Your task to perform on an android device: toggle notification dots Image 0: 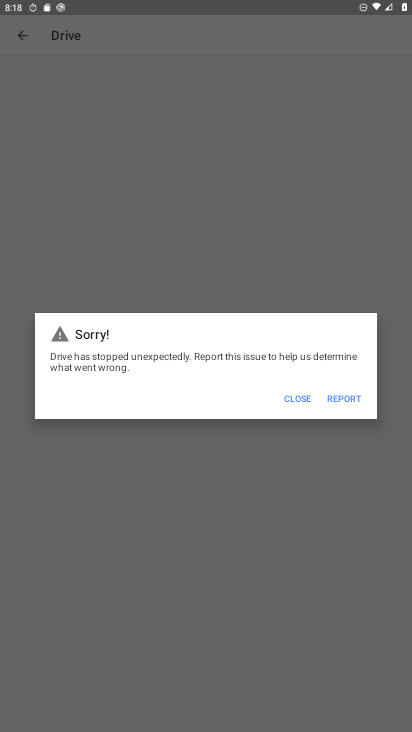
Step 0: press home button
Your task to perform on an android device: toggle notification dots Image 1: 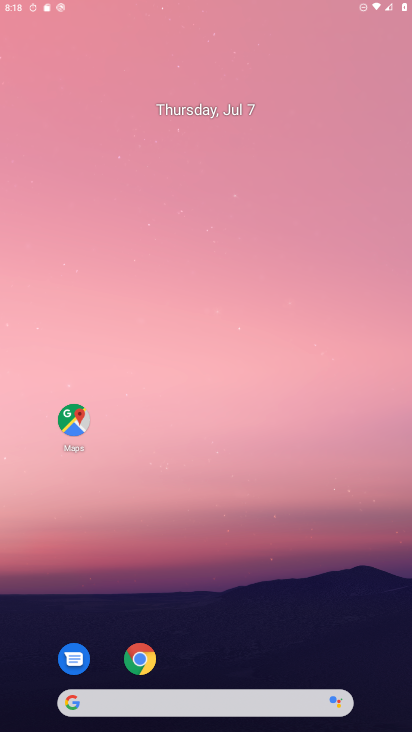
Step 1: drag from (384, 678) to (232, 0)
Your task to perform on an android device: toggle notification dots Image 2: 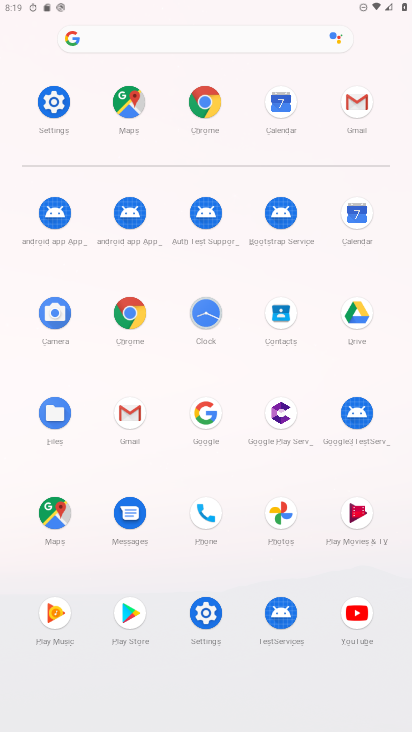
Step 2: click (54, 97)
Your task to perform on an android device: toggle notification dots Image 3: 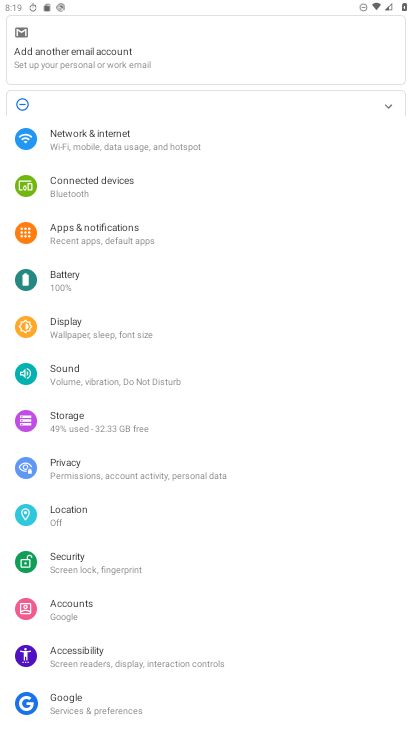
Step 3: click (109, 238)
Your task to perform on an android device: toggle notification dots Image 4: 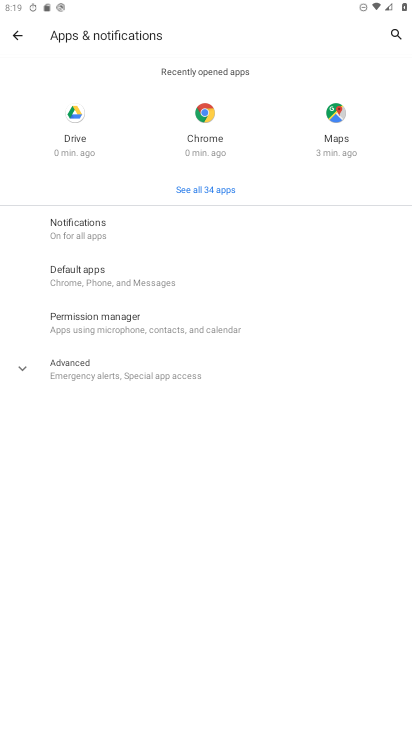
Step 4: click (113, 238)
Your task to perform on an android device: toggle notification dots Image 5: 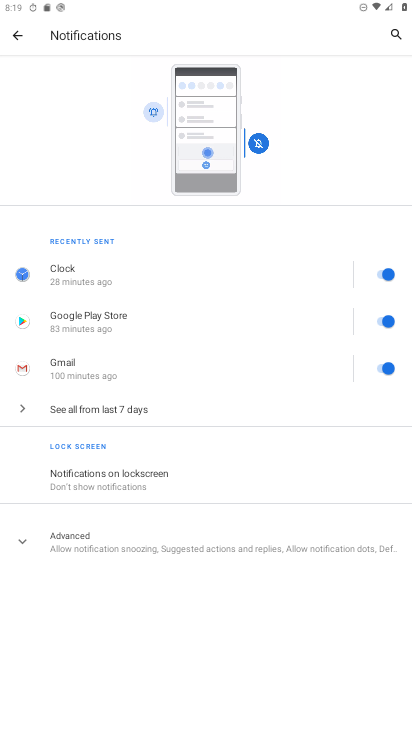
Step 5: click (88, 543)
Your task to perform on an android device: toggle notification dots Image 6: 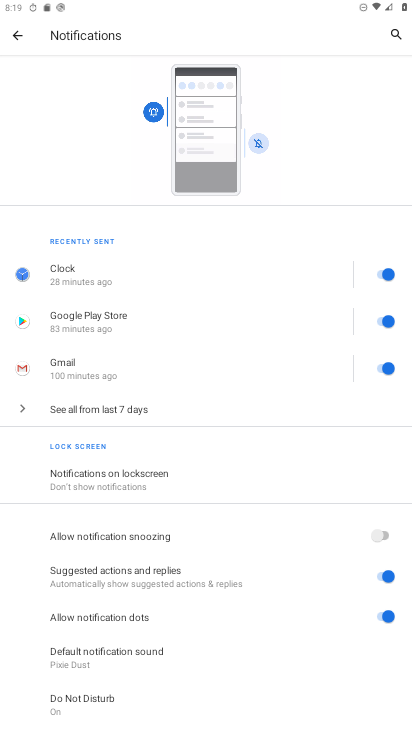
Step 6: click (364, 620)
Your task to perform on an android device: toggle notification dots Image 7: 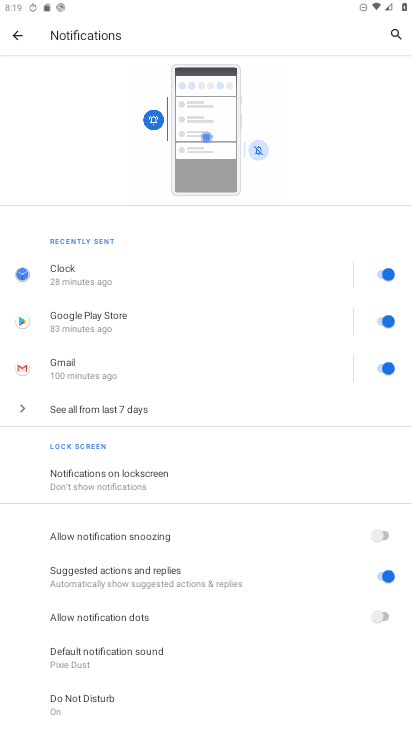
Step 7: task complete